Your task to perform on an android device: Go to display settings Image 0: 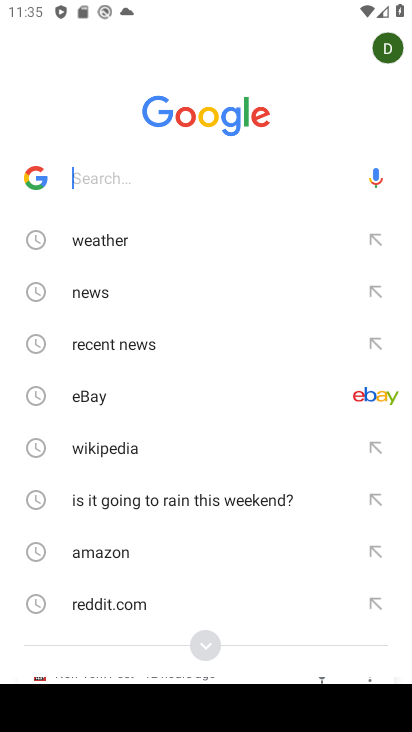
Step 0: press back button
Your task to perform on an android device: Go to display settings Image 1: 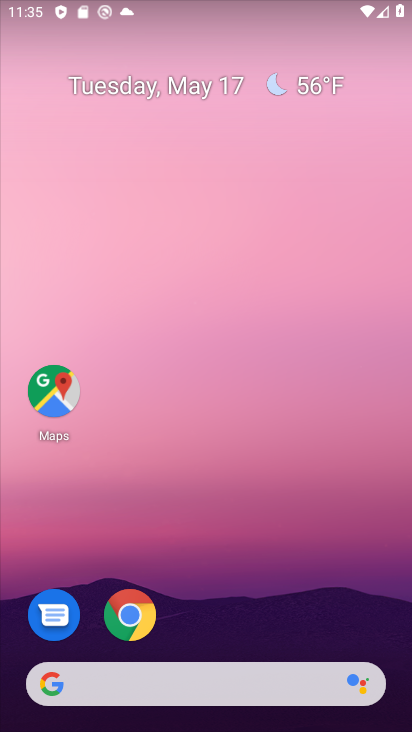
Step 1: drag from (195, 653) to (245, 5)
Your task to perform on an android device: Go to display settings Image 2: 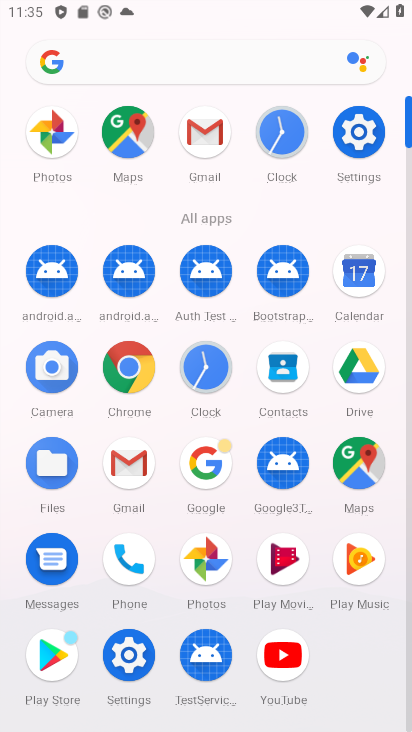
Step 2: click (356, 114)
Your task to perform on an android device: Go to display settings Image 3: 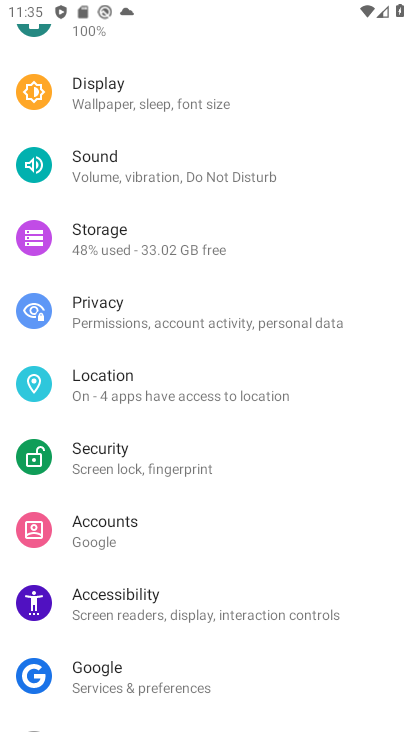
Step 3: click (108, 89)
Your task to perform on an android device: Go to display settings Image 4: 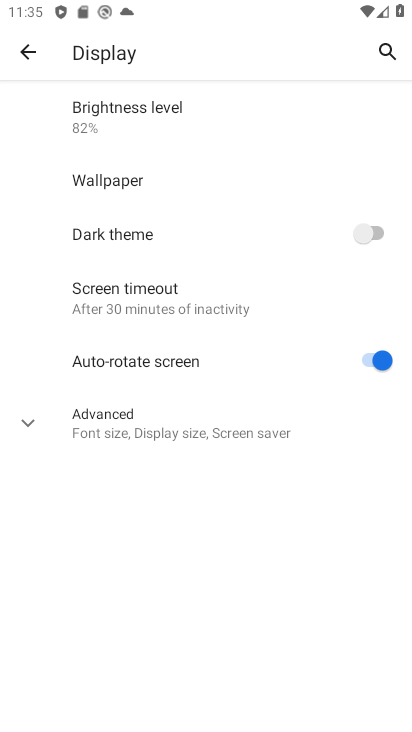
Step 4: task complete